Your task to perform on an android device: Go to location settings Image 0: 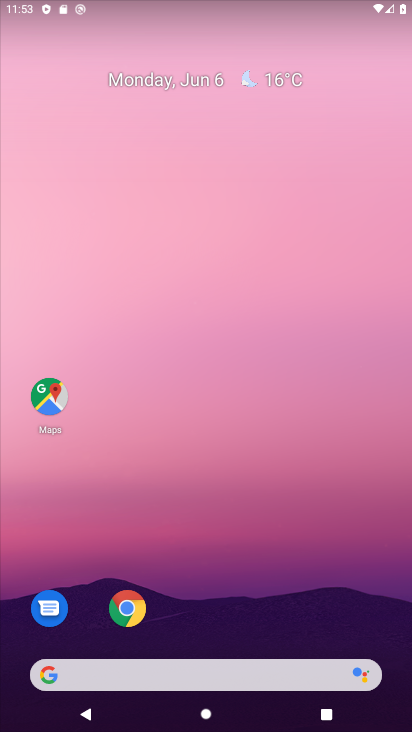
Step 0: drag from (261, 608) to (397, 11)
Your task to perform on an android device: Go to location settings Image 1: 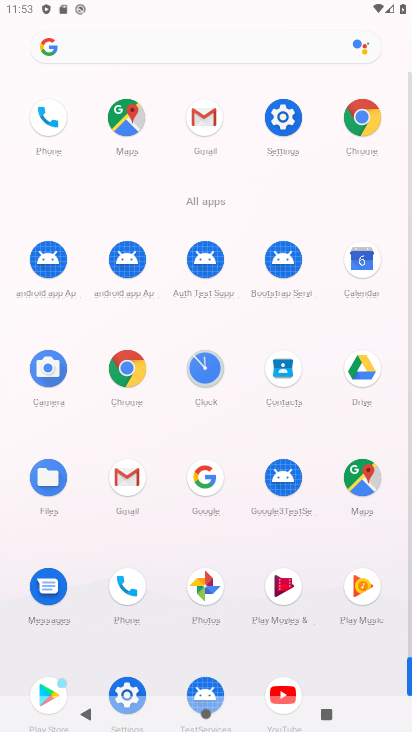
Step 1: click (287, 115)
Your task to perform on an android device: Go to location settings Image 2: 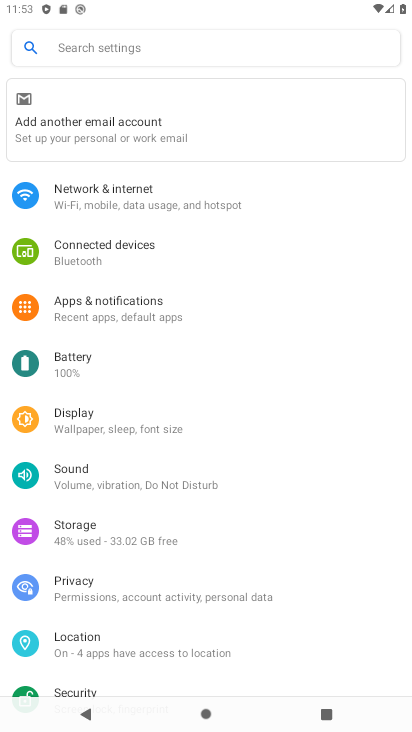
Step 2: click (151, 652)
Your task to perform on an android device: Go to location settings Image 3: 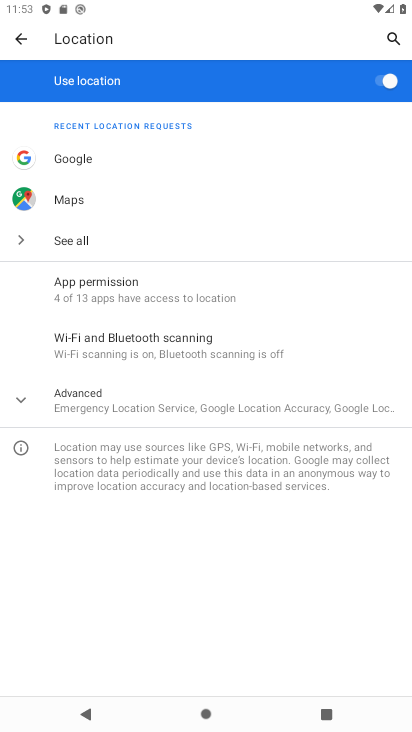
Step 3: task complete